Your task to perform on an android device: create a new album in the google photos Image 0: 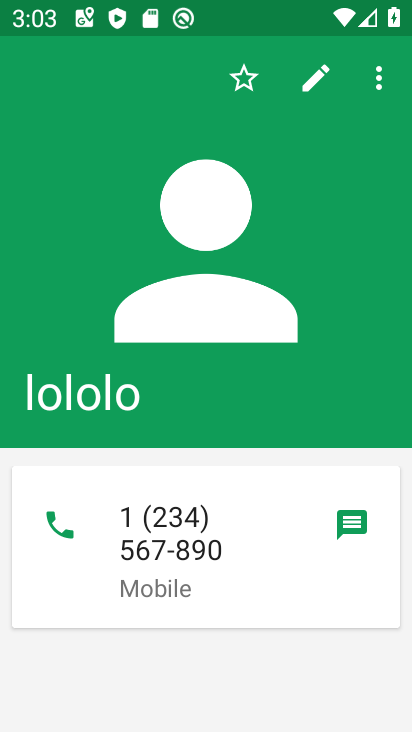
Step 0: press home button
Your task to perform on an android device: create a new album in the google photos Image 1: 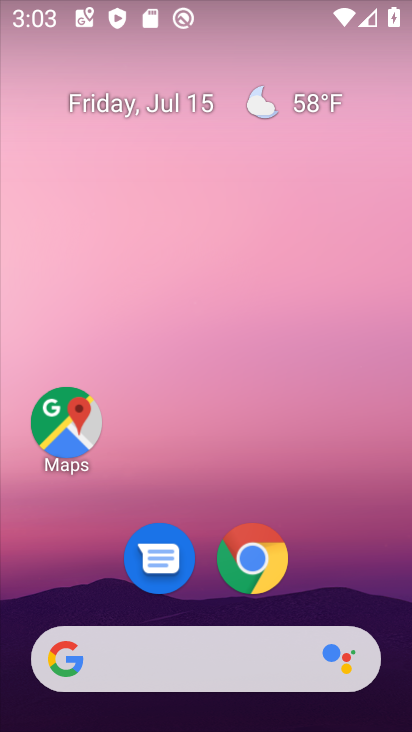
Step 1: drag from (350, 584) to (355, 264)
Your task to perform on an android device: create a new album in the google photos Image 2: 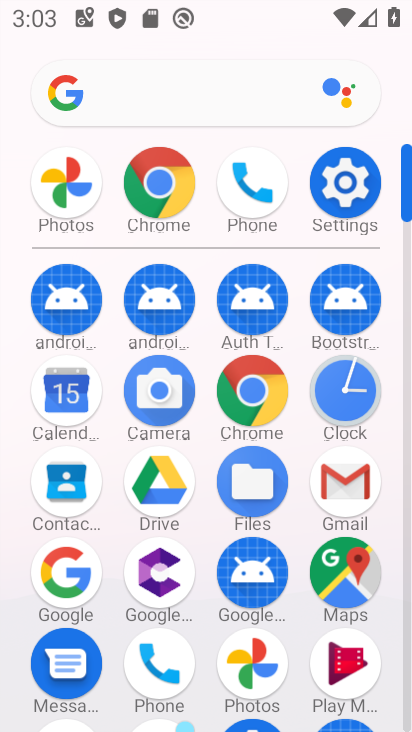
Step 2: click (258, 658)
Your task to perform on an android device: create a new album in the google photos Image 3: 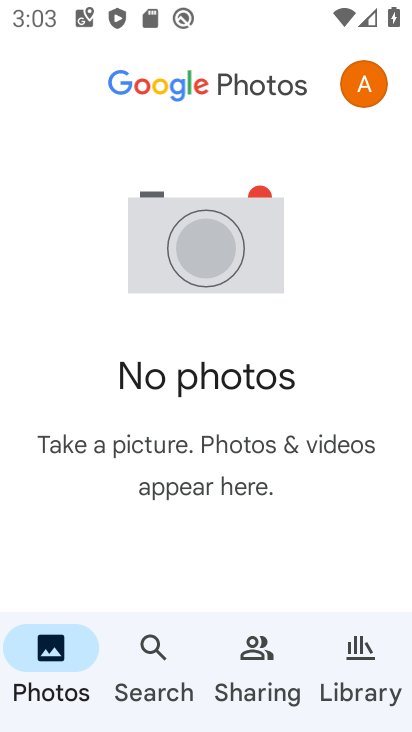
Step 3: click (372, 654)
Your task to perform on an android device: create a new album in the google photos Image 4: 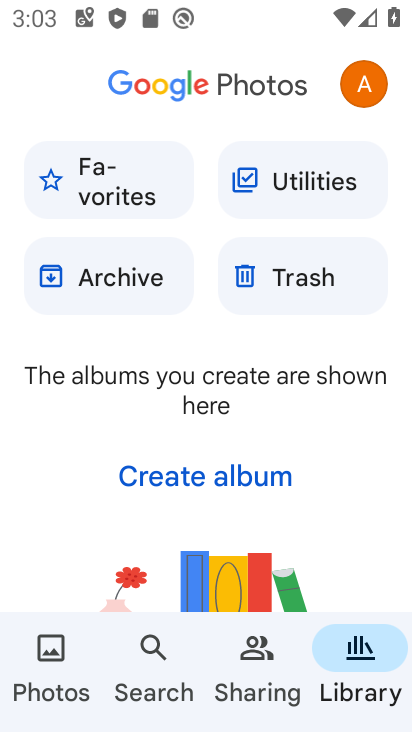
Step 4: click (273, 467)
Your task to perform on an android device: create a new album in the google photos Image 5: 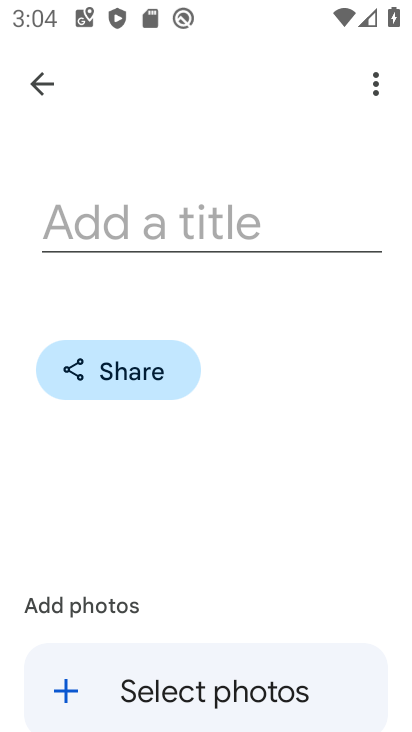
Step 5: click (271, 231)
Your task to perform on an android device: create a new album in the google photos Image 6: 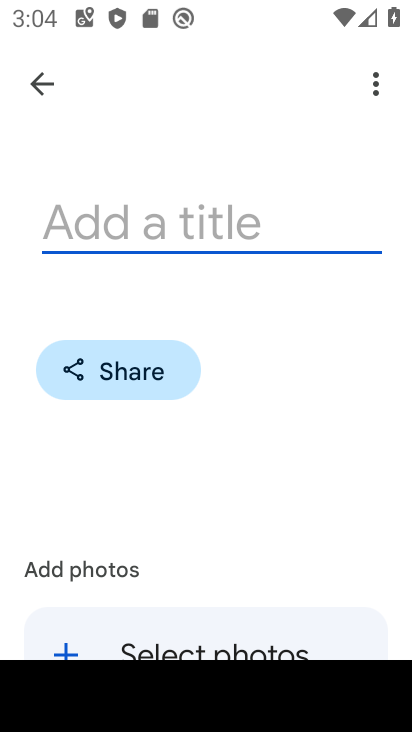
Step 6: type "fav"
Your task to perform on an android device: create a new album in the google photos Image 7: 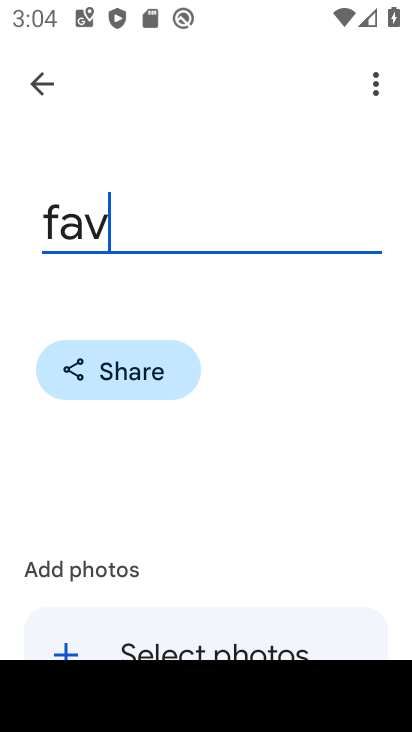
Step 7: drag from (349, 536) to (326, 327)
Your task to perform on an android device: create a new album in the google photos Image 8: 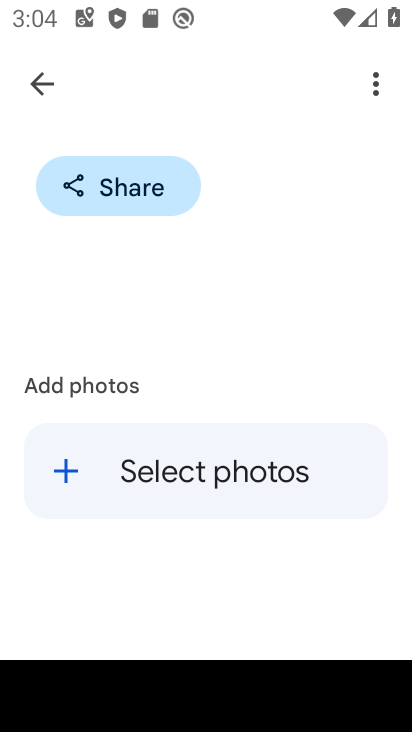
Step 8: click (199, 475)
Your task to perform on an android device: create a new album in the google photos Image 9: 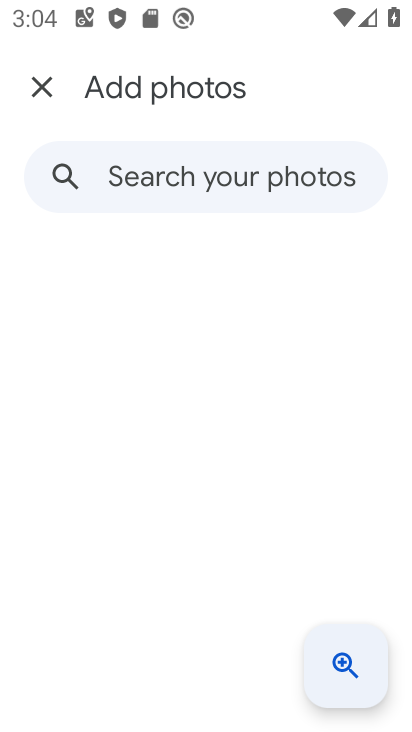
Step 9: task complete